Your task to perform on an android device: toggle priority inbox in the gmail app Image 0: 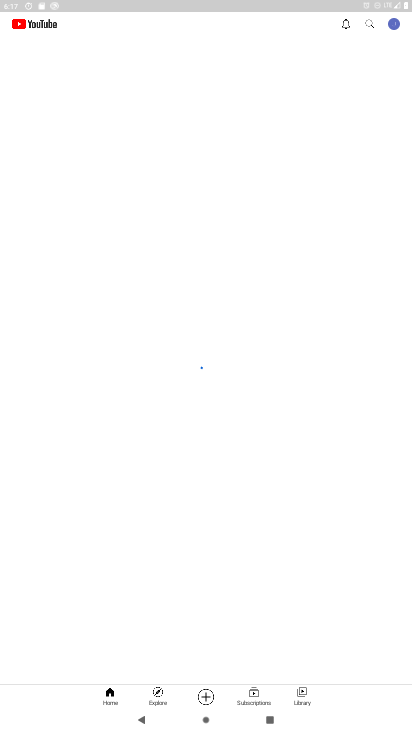
Step 0: click (67, 231)
Your task to perform on an android device: toggle priority inbox in the gmail app Image 1: 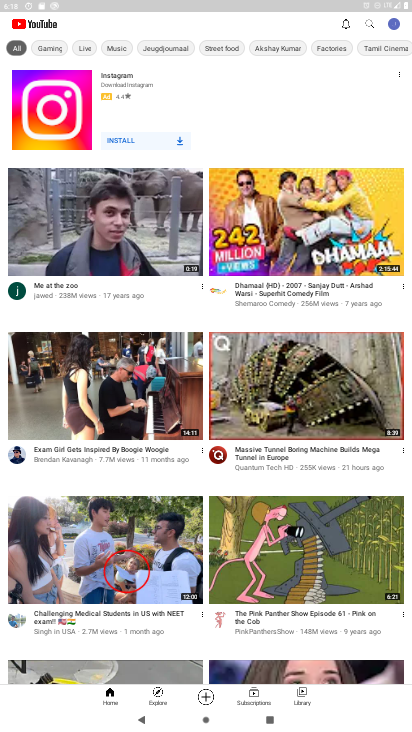
Step 1: press home button
Your task to perform on an android device: toggle priority inbox in the gmail app Image 2: 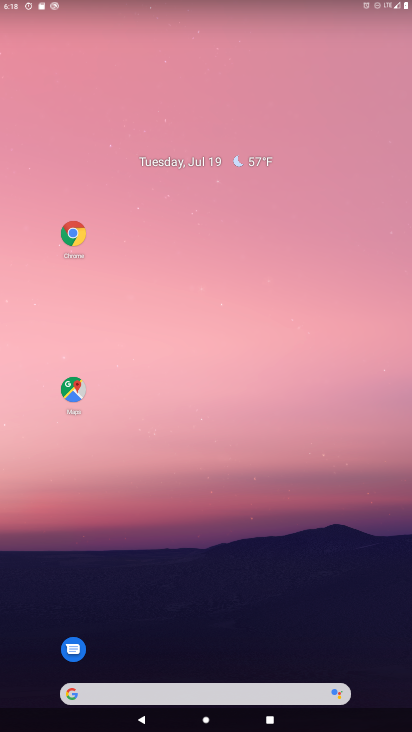
Step 2: drag from (207, 646) to (191, 113)
Your task to perform on an android device: toggle priority inbox in the gmail app Image 3: 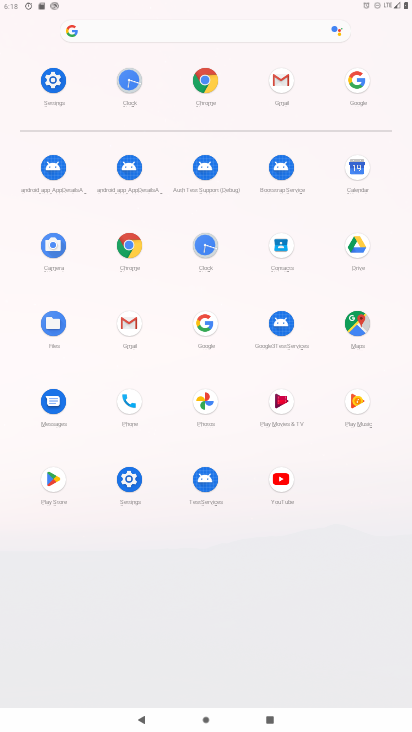
Step 3: click (283, 84)
Your task to perform on an android device: toggle priority inbox in the gmail app Image 4: 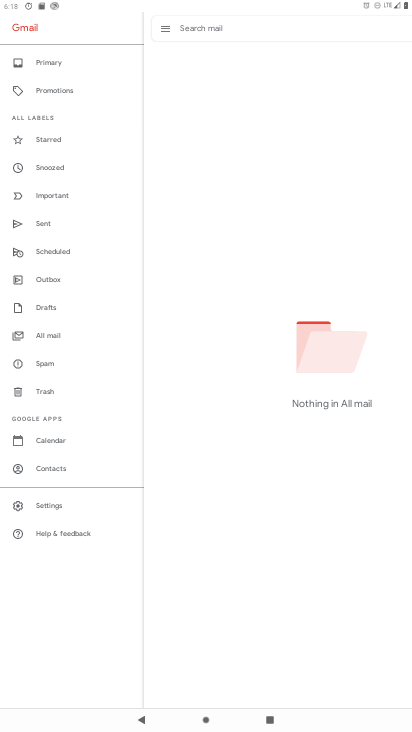
Step 4: click (51, 498)
Your task to perform on an android device: toggle priority inbox in the gmail app Image 5: 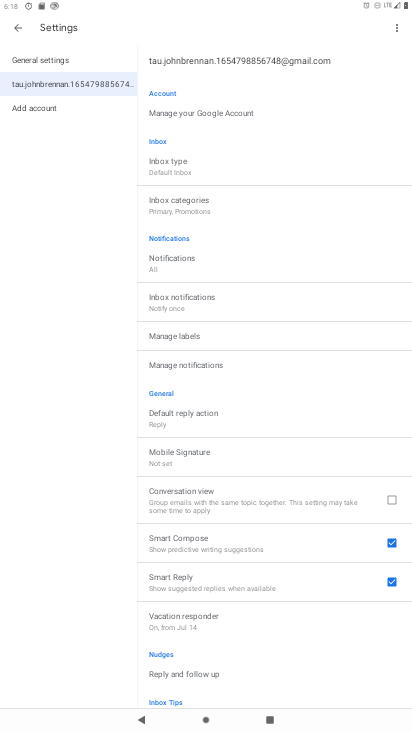
Step 5: click (169, 165)
Your task to perform on an android device: toggle priority inbox in the gmail app Image 6: 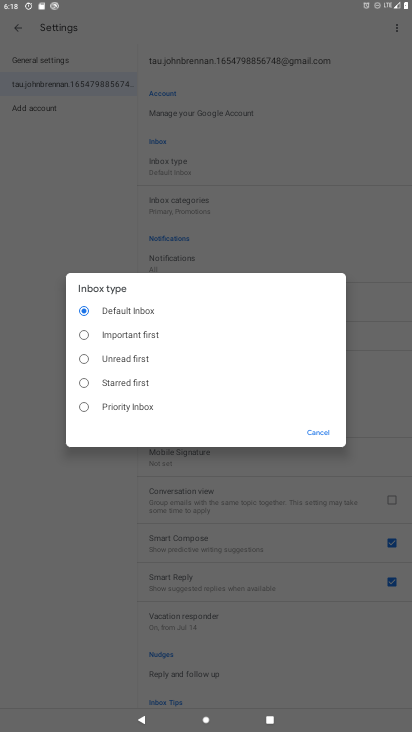
Step 6: click (85, 408)
Your task to perform on an android device: toggle priority inbox in the gmail app Image 7: 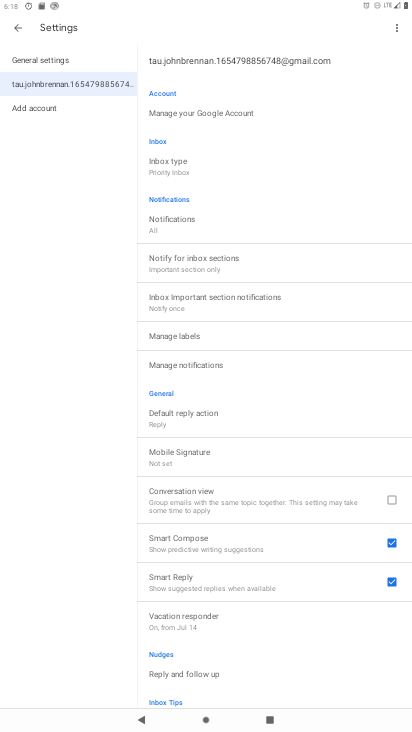
Step 7: task complete